Your task to perform on an android device: Go to Yahoo.com Image 0: 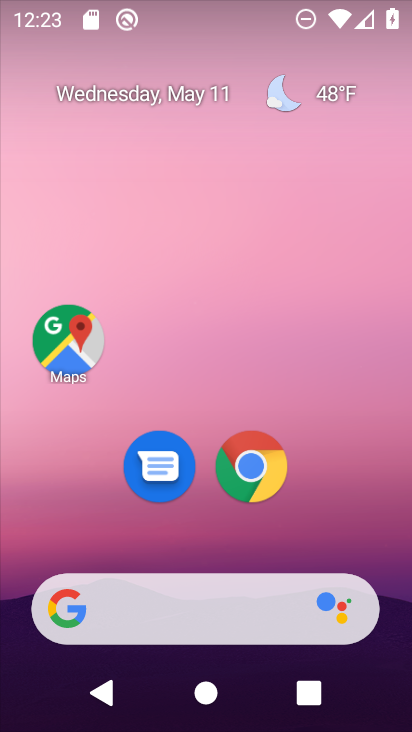
Step 0: press home button
Your task to perform on an android device: Go to Yahoo.com Image 1: 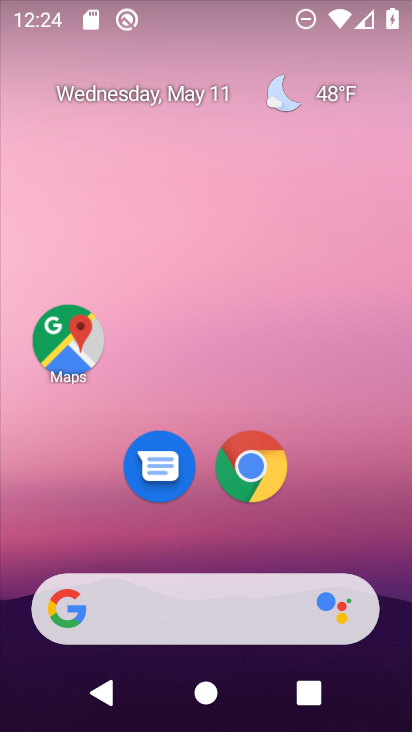
Step 1: drag from (211, 545) to (221, 29)
Your task to perform on an android device: Go to Yahoo.com Image 2: 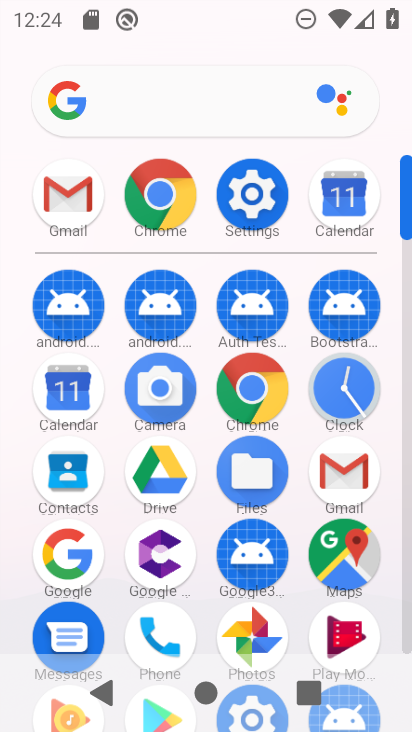
Step 2: click (157, 187)
Your task to perform on an android device: Go to Yahoo.com Image 3: 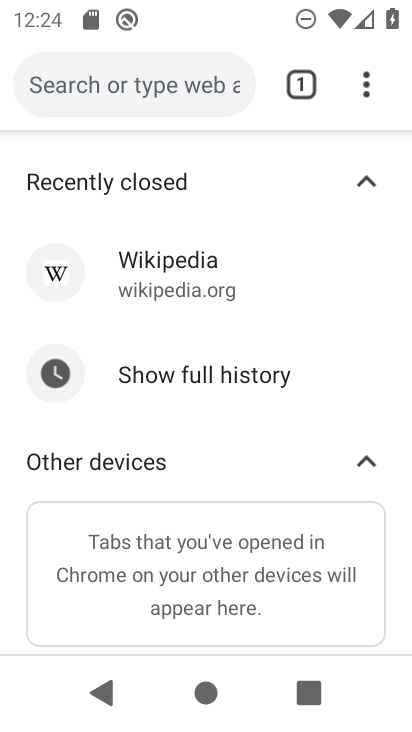
Step 3: click (297, 83)
Your task to perform on an android device: Go to Yahoo.com Image 4: 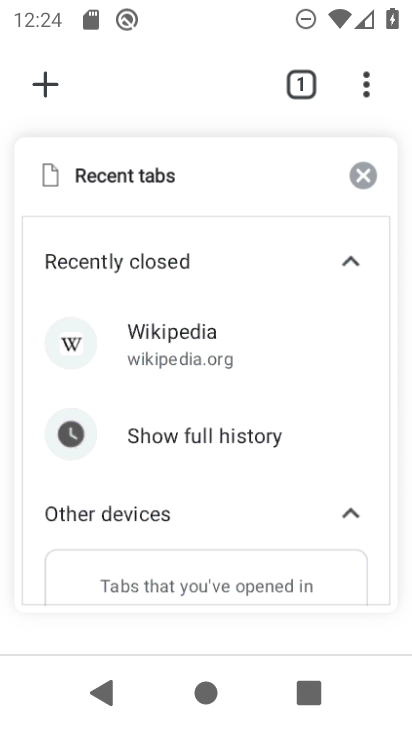
Step 4: click (360, 174)
Your task to perform on an android device: Go to Yahoo.com Image 5: 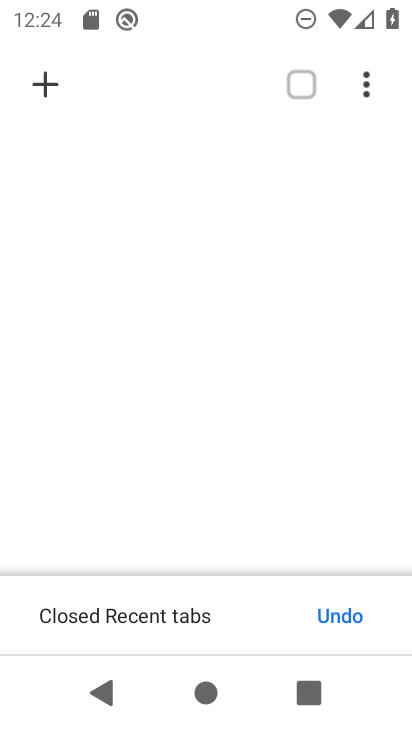
Step 5: click (50, 92)
Your task to perform on an android device: Go to Yahoo.com Image 6: 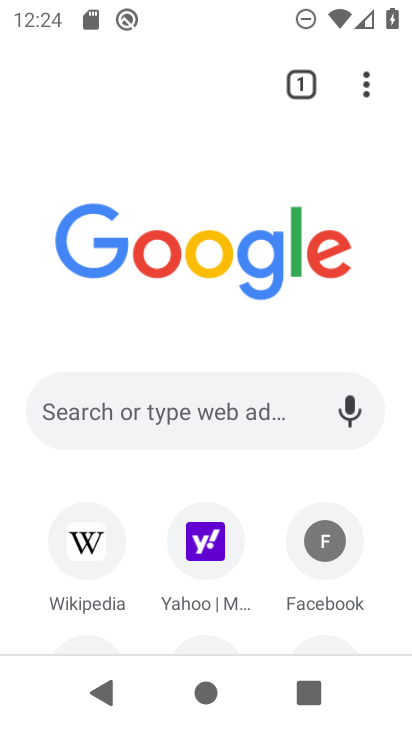
Step 6: click (204, 532)
Your task to perform on an android device: Go to Yahoo.com Image 7: 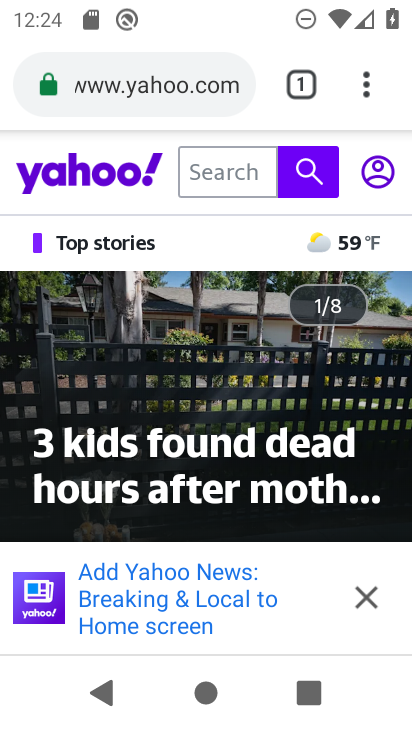
Step 7: click (361, 598)
Your task to perform on an android device: Go to Yahoo.com Image 8: 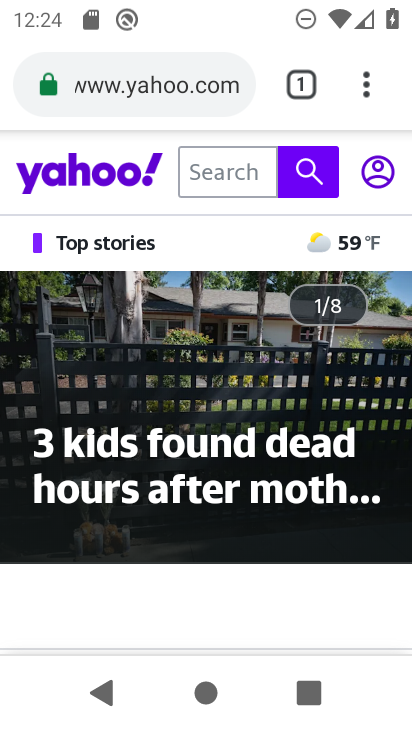
Step 8: task complete